Your task to perform on an android device: toggle javascript in the chrome app Image 0: 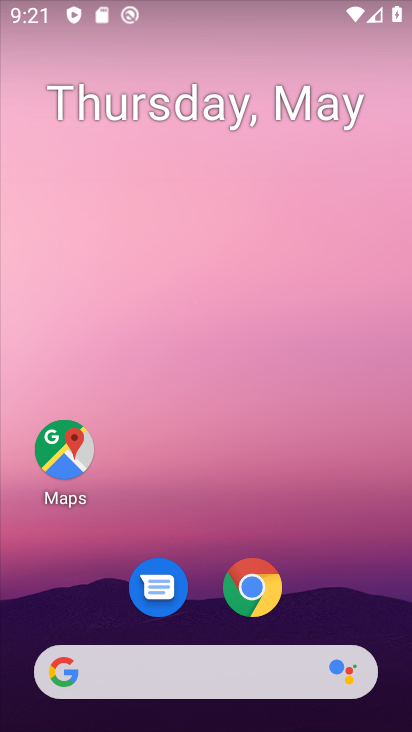
Step 0: click (248, 589)
Your task to perform on an android device: toggle javascript in the chrome app Image 1: 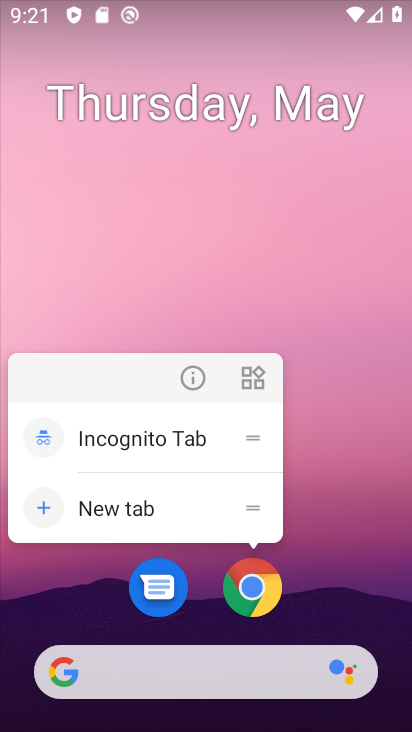
Step 1: click (250, 590)
Your task to perform on an android device: toggle javascript in the chrome app Image 2: 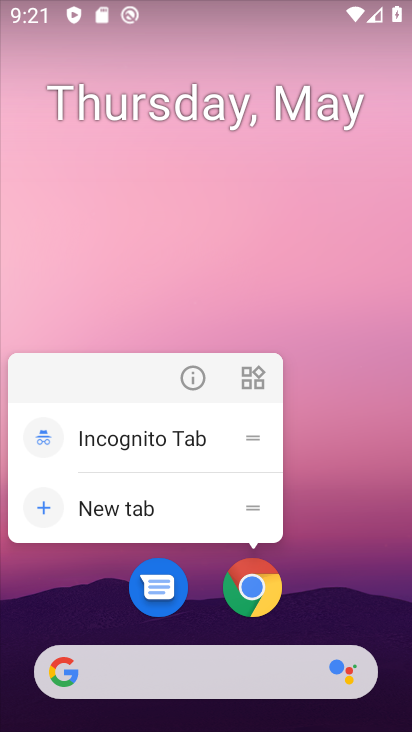
Step 2: click (250, 590)
Your task to perform on an android device: toggle javascript in the chrome app Image 3: 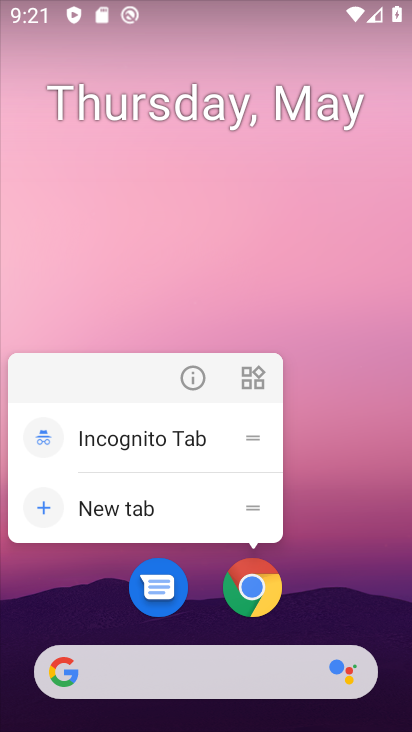
Step 3: click (250, 590)
Your task to perform on an android device: toggle javascript in the chrome app Image 4: 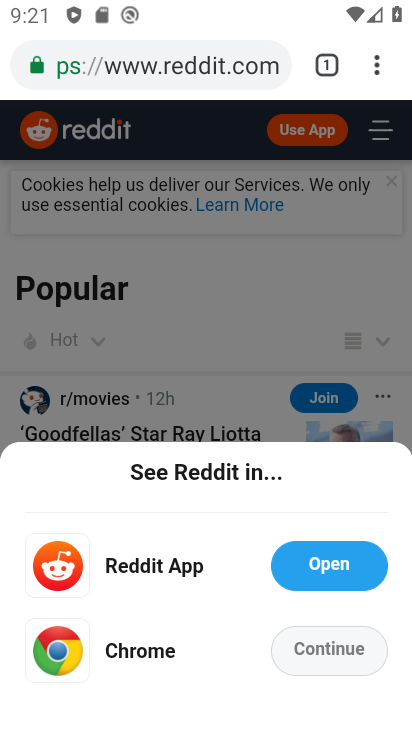
Step 4: click (378, 67)
Your task to perform on an android device: toggle javascript in the chrome app Image 5: 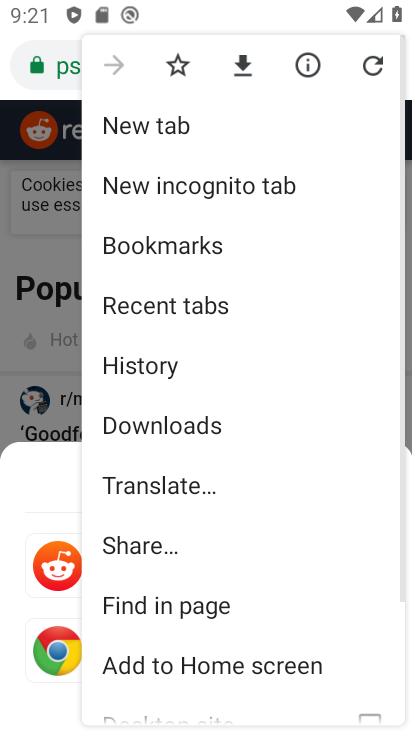
Step 5: drag from (229, 651) to (212, 109)
Your task to perform on an android device: toggle javascript in the chrome app Image 6: 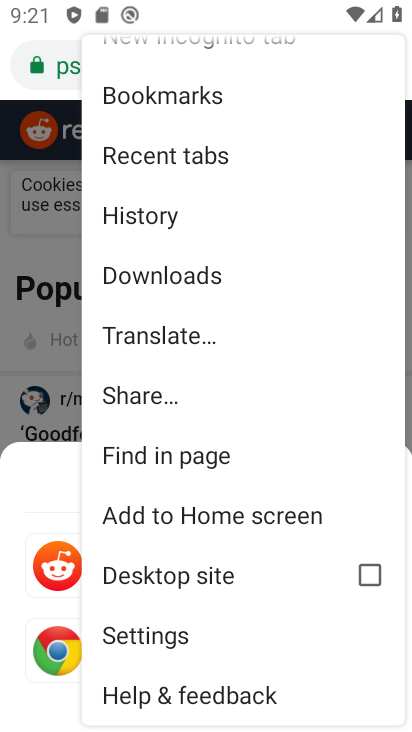
Step 6: click (150, 639)
Your task to perform on an android device: toggle javascript in the chrome app Image 7: 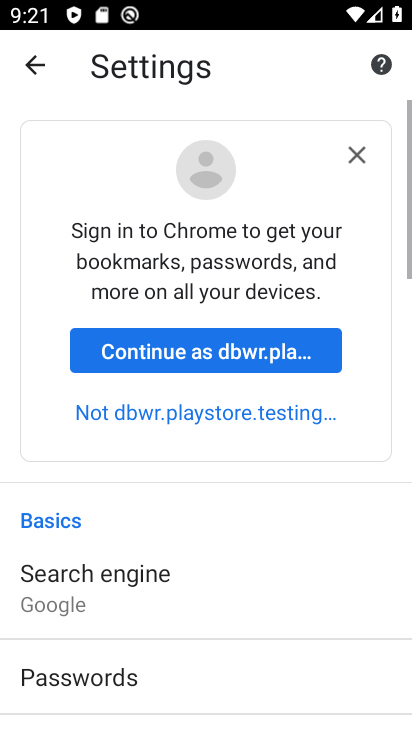
Step 7: drag from (150, 639) to (116, 90)
Your task to perform on an android device: toggle javascript in the chrome app Image 8: 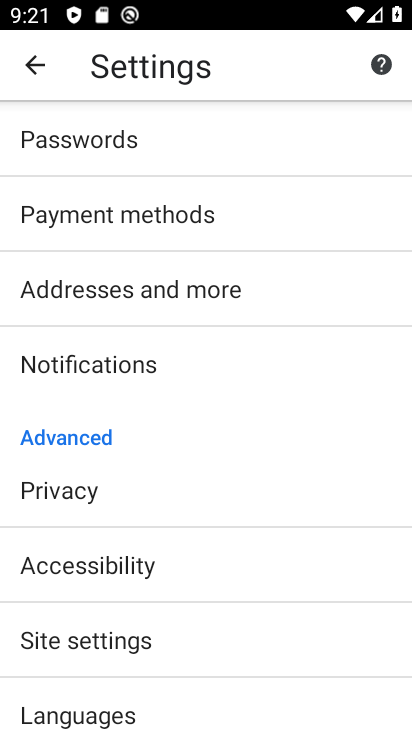
Step 8: drag from (150, 619) to (161, 241)
Your task to perform on an android device: toggle javascript in the chrome app Image 9: 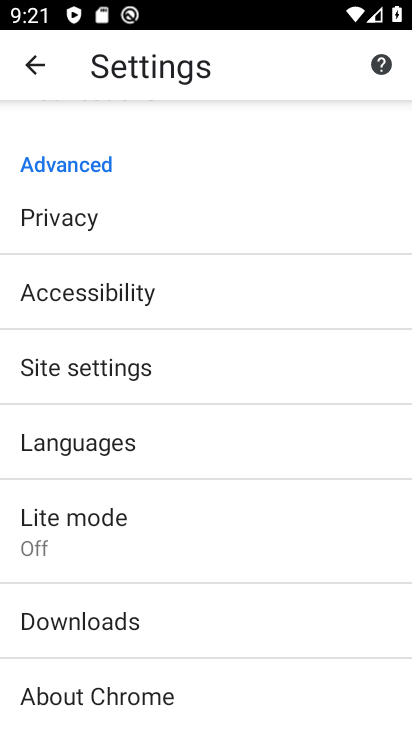
Step 9: click (110, 365)
Your task to perform on an android device: toggle javascript in the chrome app Image 10: 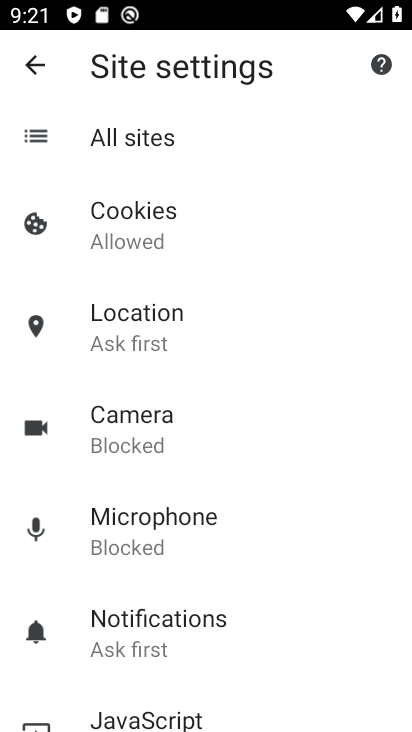
Step 10: drag from (277, 590) to (277, 341)
Your task to perform on an android device: toggle javascript in the chrome app Image 11: 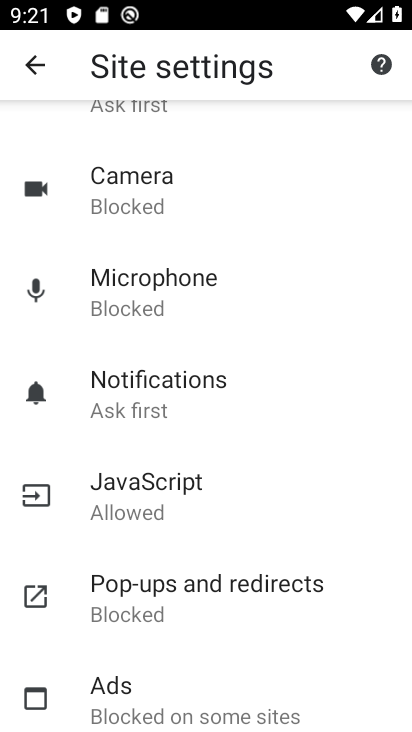
Step 11: click (129, 501)
Your task to perform on an android device: toggle javascript in the chrome app Image 12: 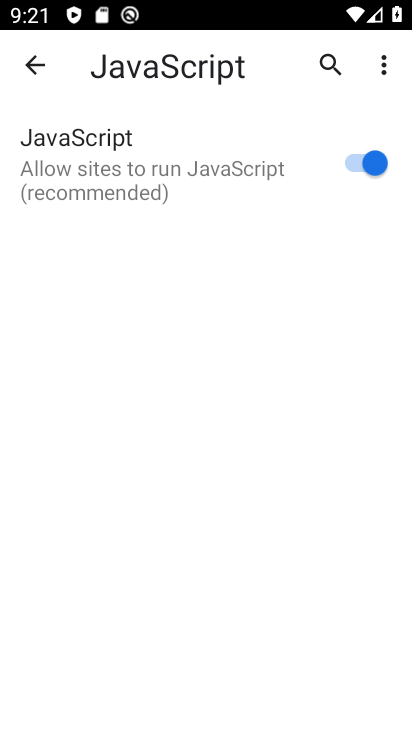
Step 12: click (379, 156)
Your task to perform on an android device: toggle javascript in the chrome app Image 13: 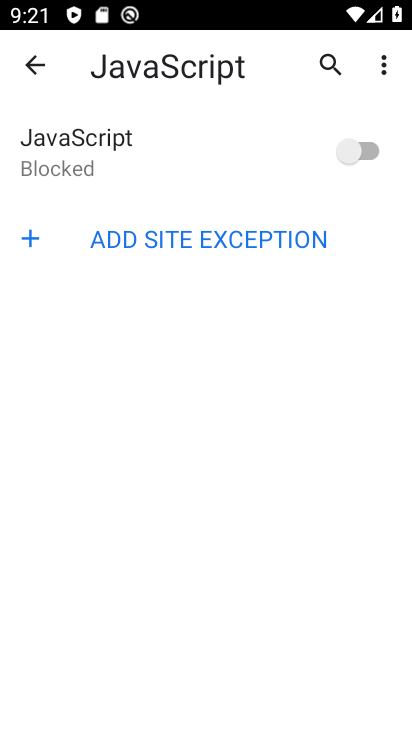
Step 13: task complete